Your task to perform on an android device: Go to Wikipedia Image 0: 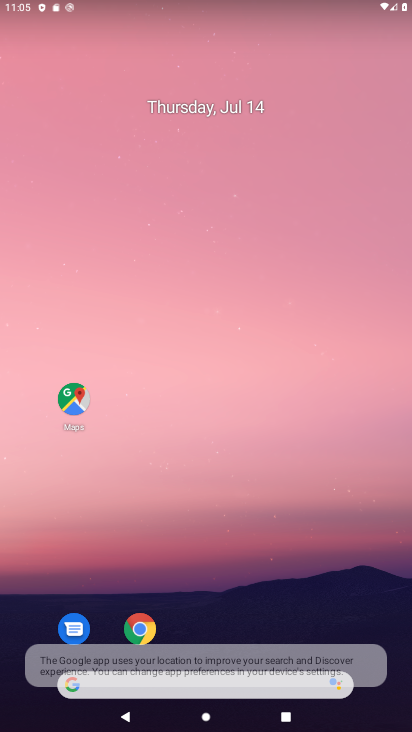
Step 0: drag from (242, 631) to (235, 6)
Your task to perform on an android device: Go to Wikipedia Image 1: 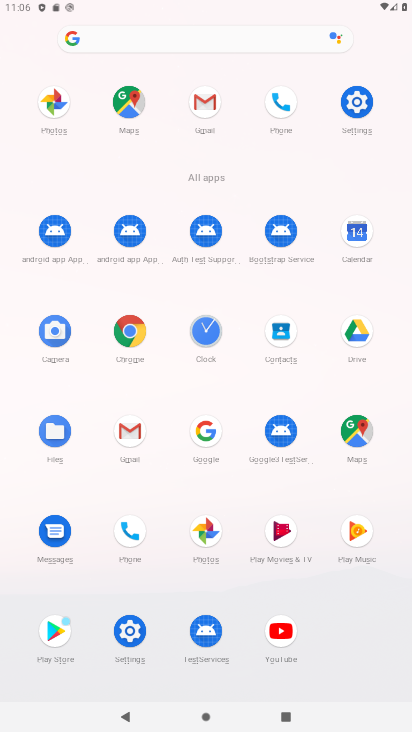
Step 1: click (139, 347)
Your task to perform on an android device: Go to Wikipedia Image 2: 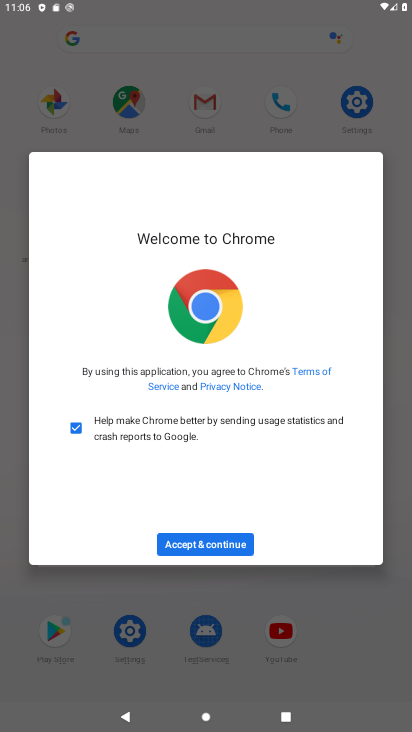
Step 2: click (224, 537)
Your task to perform on an android device: Go to Wikipedia Image 3: 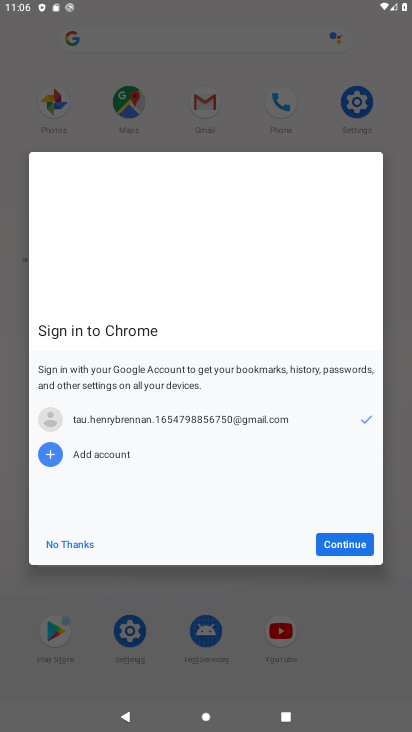
Step 3: click (329, 549)
Your task to perform on an android device: Go to Wikipedia Image 4: 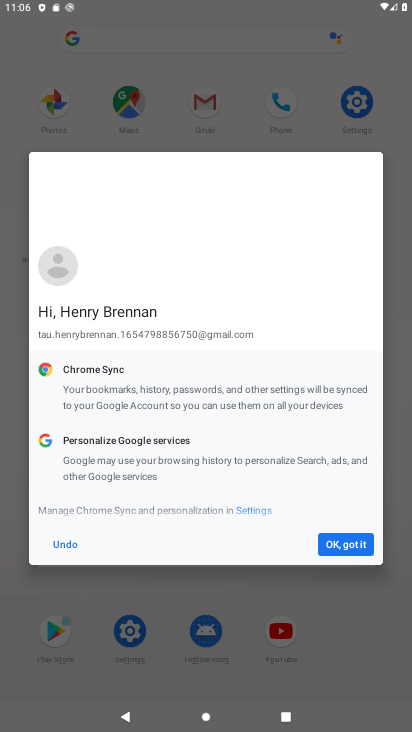
Step 4: click (327, 542)
Your task to perform on an android device: Go to Wikipedia Image 5: 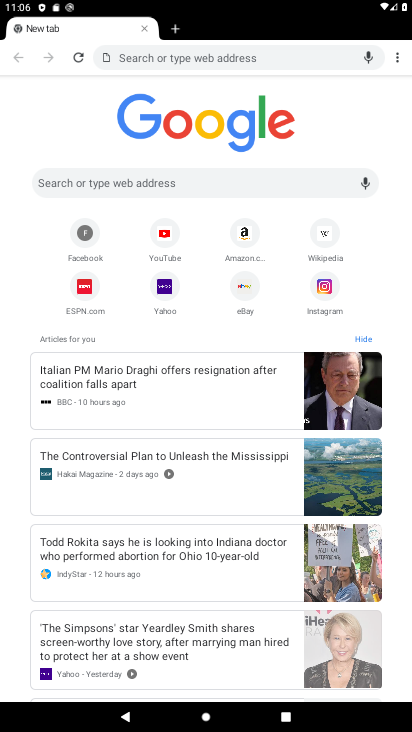
Step 5: click (319, 234)
Your task to perform on an android device: Go to Wikipedia Image 6: 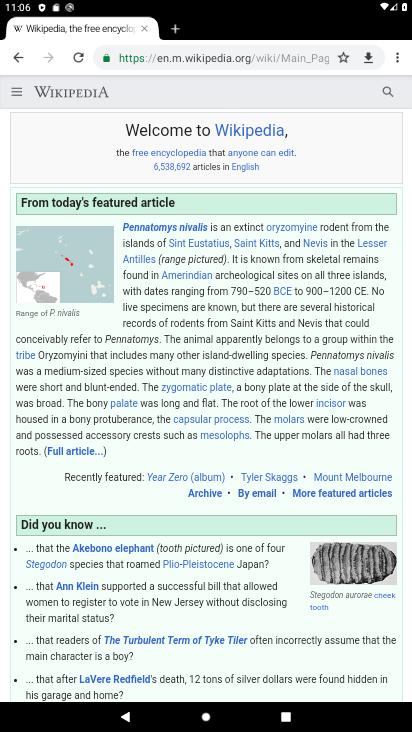
Step 6: task complete